Your task to perform on an android device: Set the phone to "Do not disturb". Image 0: 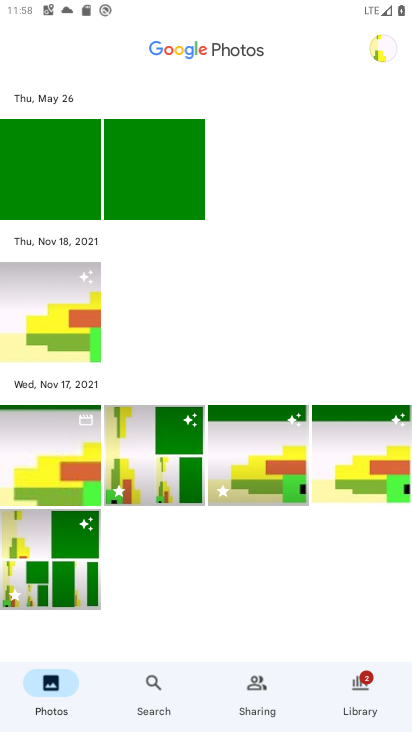
Step 0: drag from (243, 2) to (231, 495)
Your task to perform on an android device: Set the phone to "Do not disturb". Image 1: 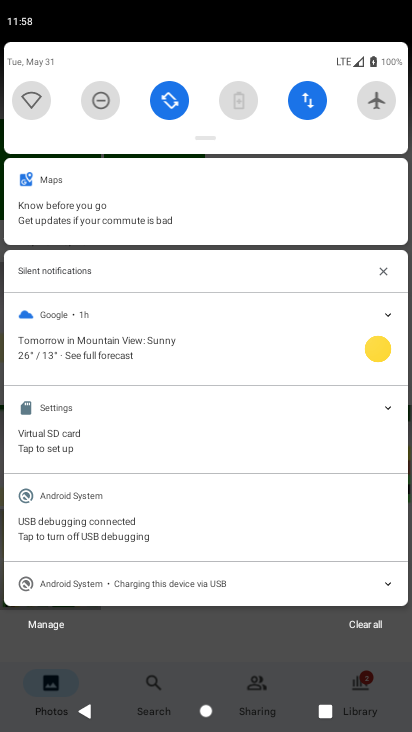
Step 1: click (94, 98)
Your task to perform on an android device: Set the phone to "Do not disturb". Image 2: 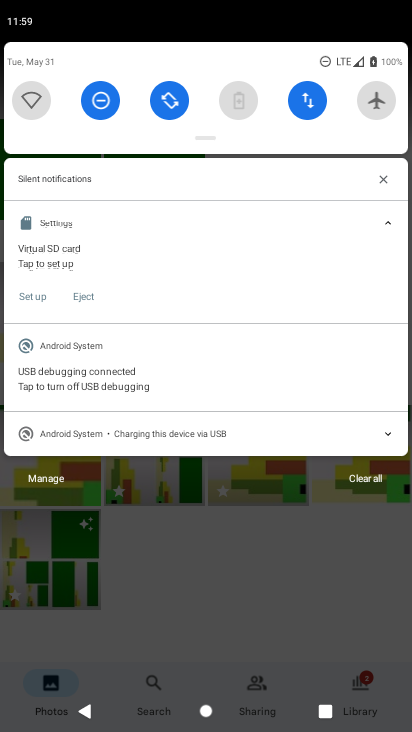
Step 2: task complete